Your task to perform on an android device: Go to battery settings Image 0: 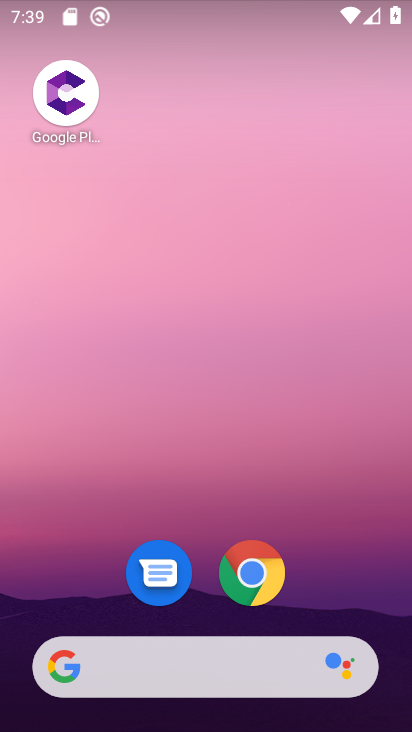
Step 0: drag from (365, 554) to (395, 54)
Your task to perform on an android device: Go to battery settings Image 1: 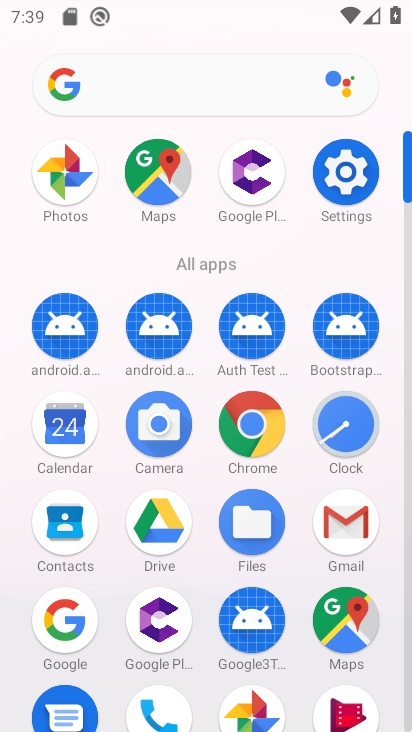
Step 1: click (352, 407)
Your task to perform on an android device: Go to battery settings Image 2: 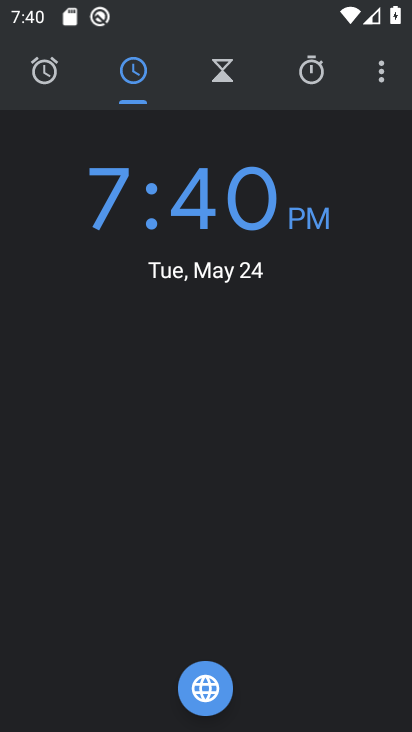
Step 2: press home button
Your task to perform on an android device: Go to battery settings Image 3: 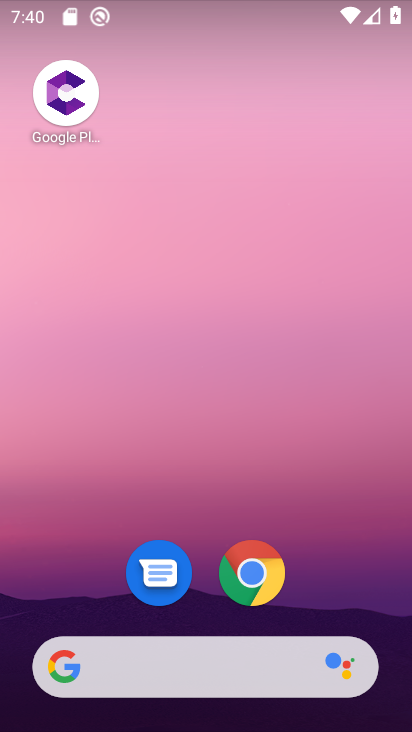
Step 3: drag from (341, 590) to (402, 78)
Your task to perform on an android device: Go to battery settings Image 4: 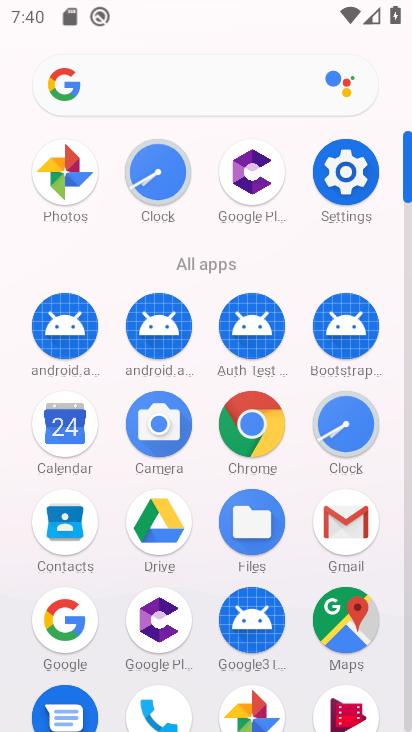
Step 4: click (362, 169)
Your task to perform on an android device: Go to battery settings Image 5: 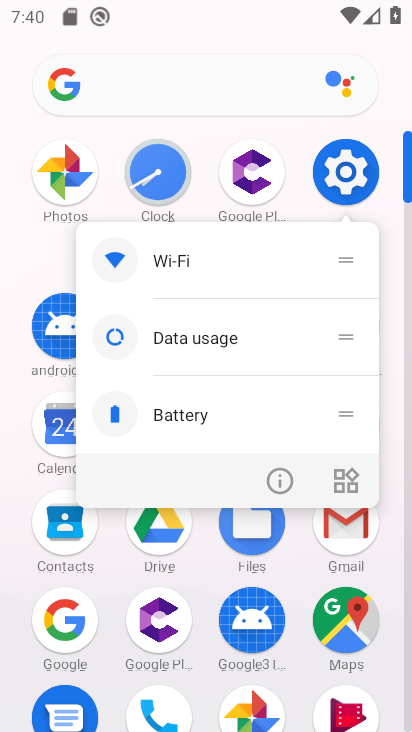
Step 5: click (361, 170)
Your task to perform on an android device: Go to battery settings Image 6: 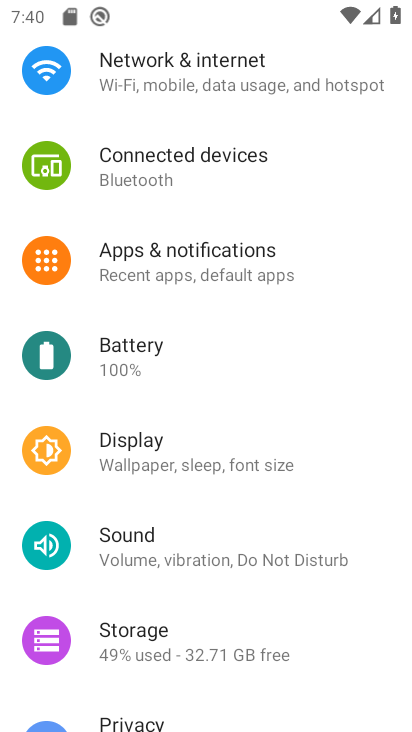
Step 6: click (154, 365)
Your task to perform on an android device: Go to battery settings Image 7: 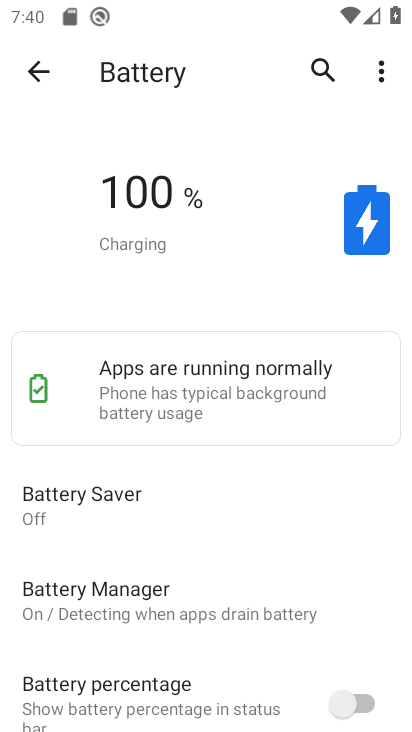
Step 7: task complete